Your task to perform on an android device: Search for Italian restaurants on Maps Image 0: 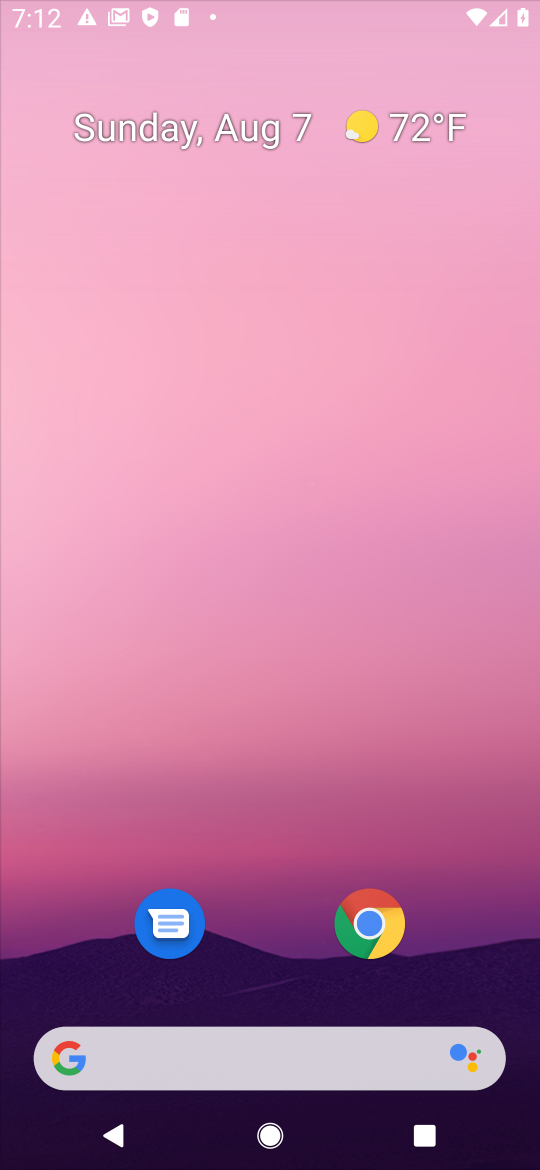
Step 0: drag from (480, 891) to (370, 28)
Your task to perform on an android device: Search for Italian restaurants on Maps Image 1: 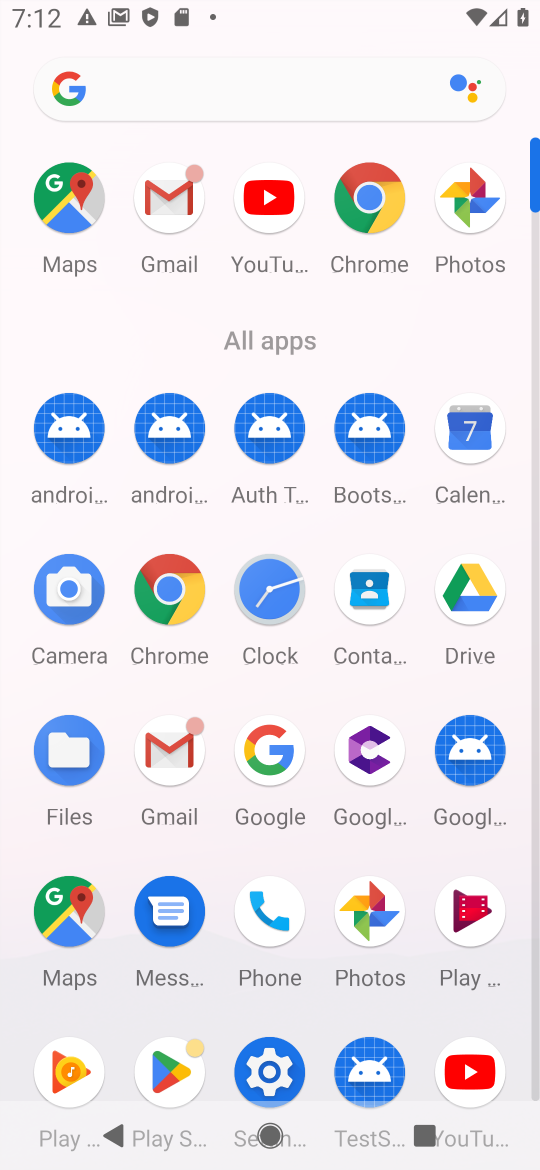
Step 1: click (77, 917)
Your task to perform on an android device: Search for Italian restaurants on Maps Image 2: 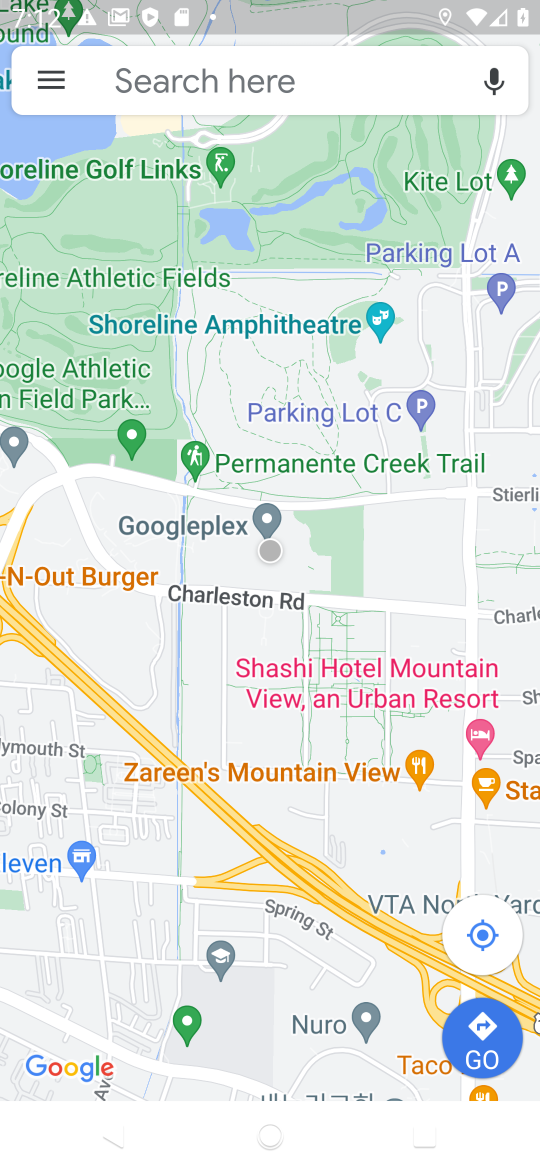
Step 2: click (194, 81)
Your task to perform on an android device: Search for Italian restaurants on Maps Image 3: 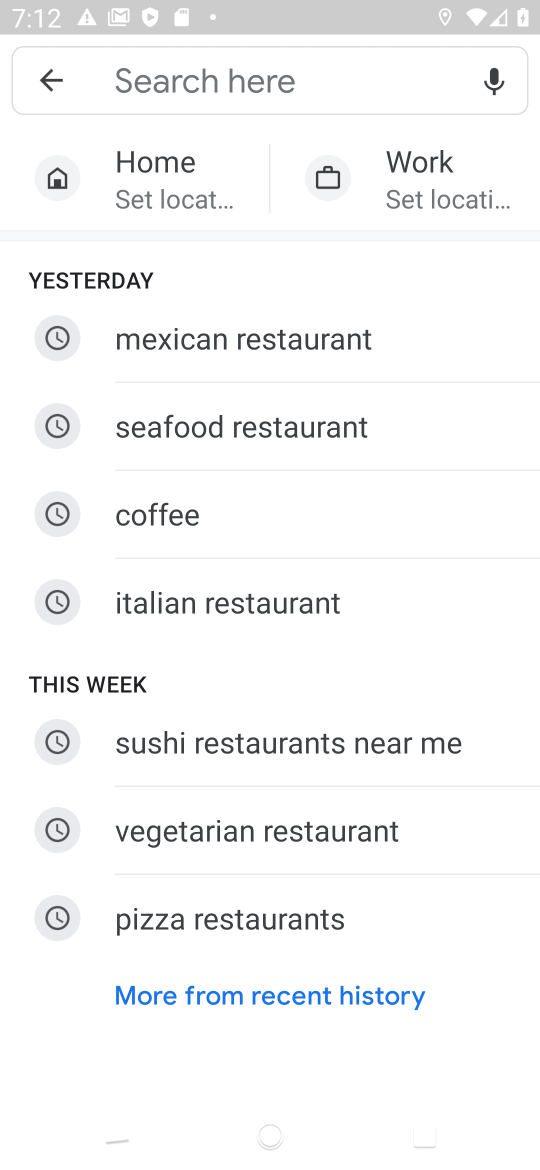
Step 3: click (215, 620)
Your task to perform on an android device: Search for Italian restaurants on Maps Image 4: 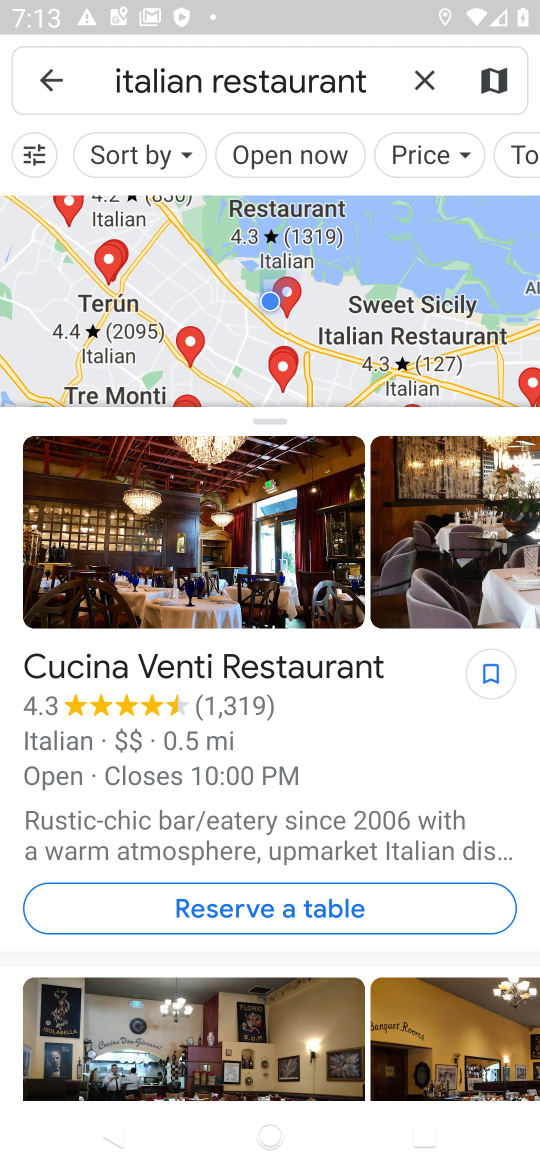
Step 4: task complete